Your task to perform on an android device: remove spam from my inbox in the gmail app Image 0: 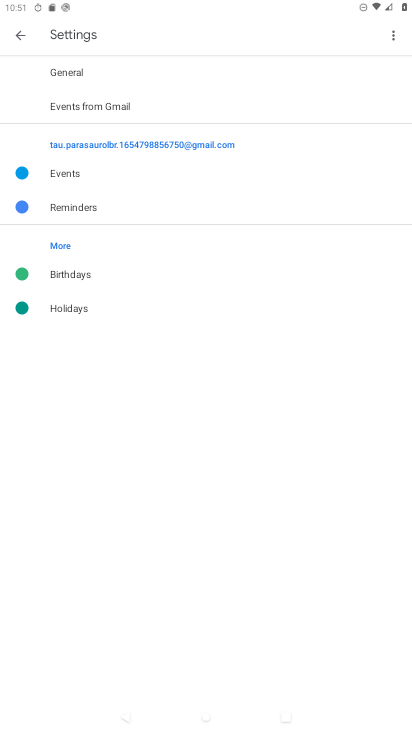
Step 0: press home button
Your task to perform on an android device: remove spam from my inbox in the gmail app Image 1: 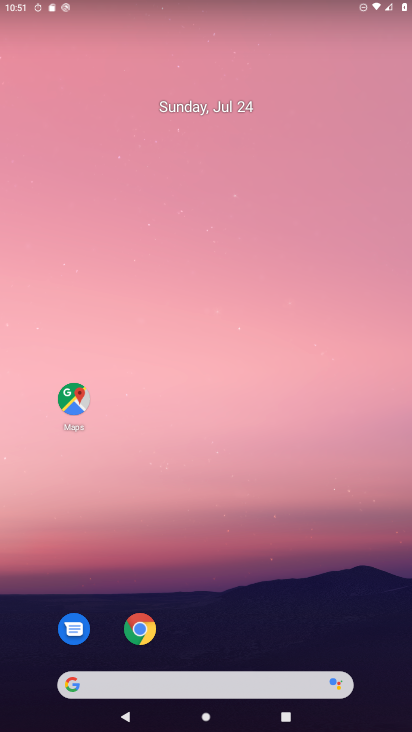
Step 1: drag from (178, 676) to (227, 129)
Your task to perform on an android device: remove spam from my inbox in the gmail app Image 2: 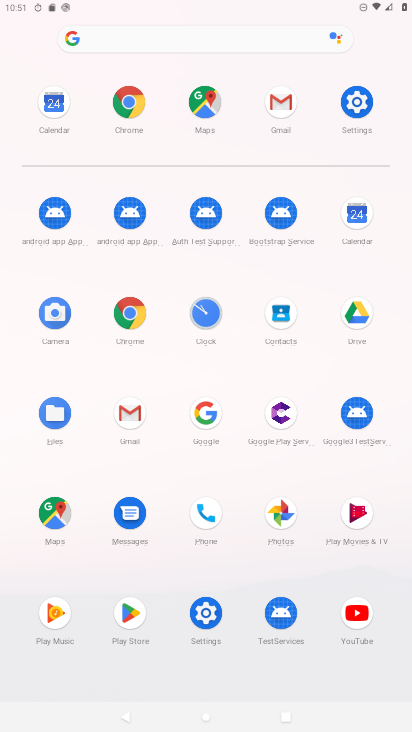
Step 2: click (136, 430)
Your task to perform on an android device: remove spam from my inbox in the gmail app Image 3: 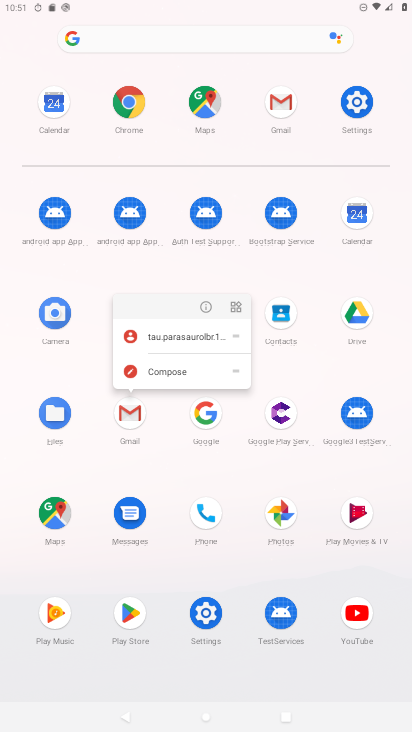
Step 3: click (138, 435)
Your task to perform on an android device: remove spam from my inbox in the gmail app Image 4: 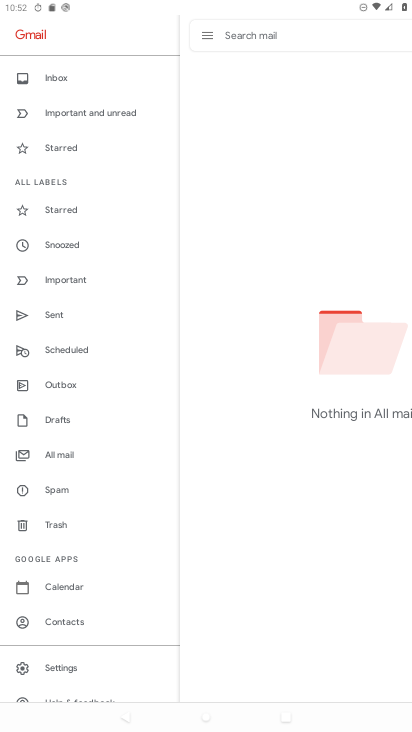
Step 4: click (63, 490)
Your task to perform on an android device: remove spam from my inbox in the gmail app Image 5: 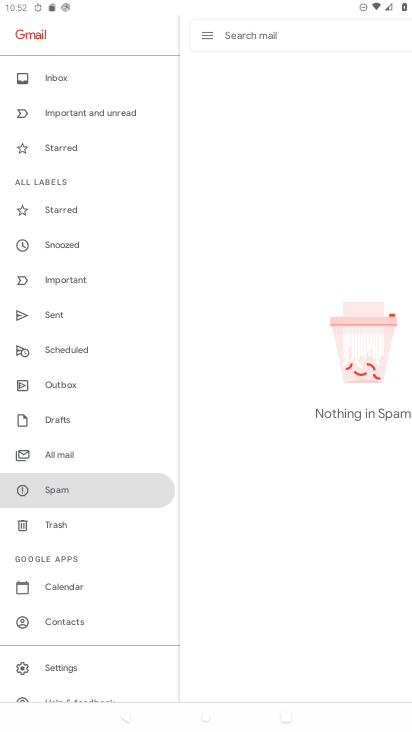
Step 5: task complete